Your task to perform on an android device: What is the news today? Image 0: 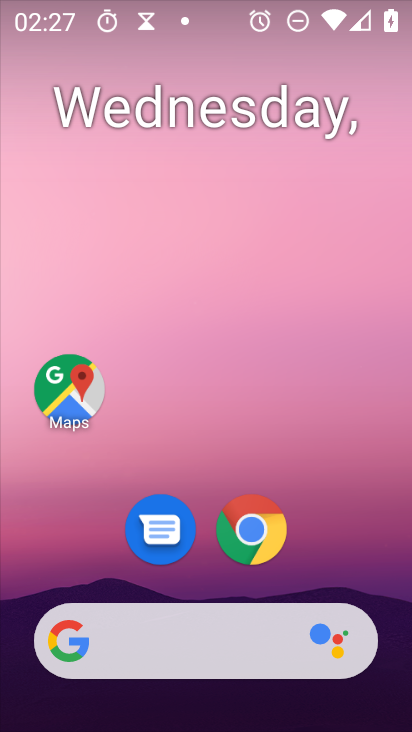
Step 0: drag from (293, 666) to (366, 7)
Your task to perform on an android device: What is the news today? Image 1: 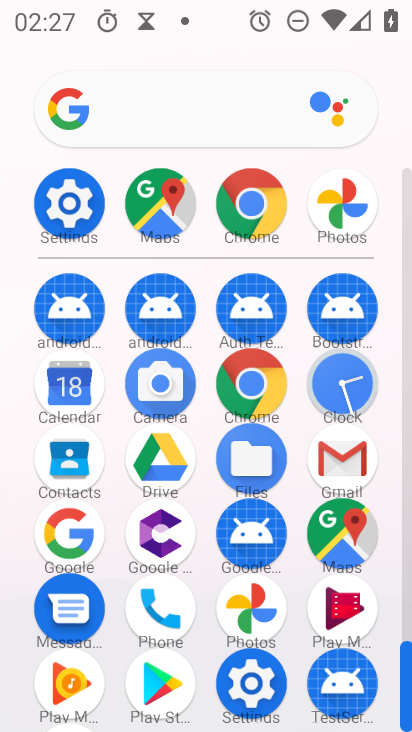
Step 1: click (274, 391)
Your task to perform on an android device: What is the news today? Image 2: 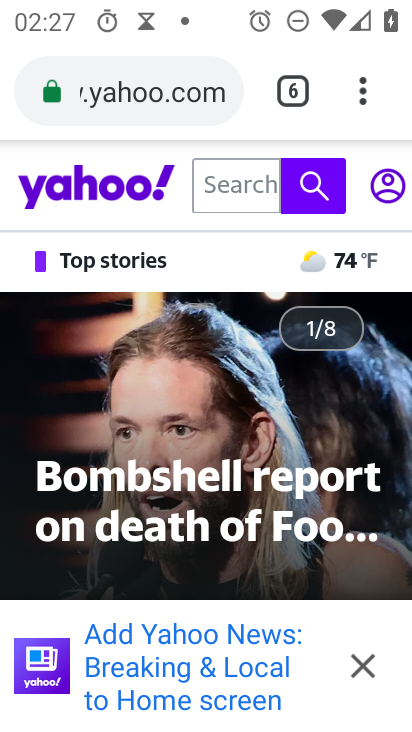
Step 2: click (205, 86)
Your task to perform on an android device: What is the news today? Image 3: 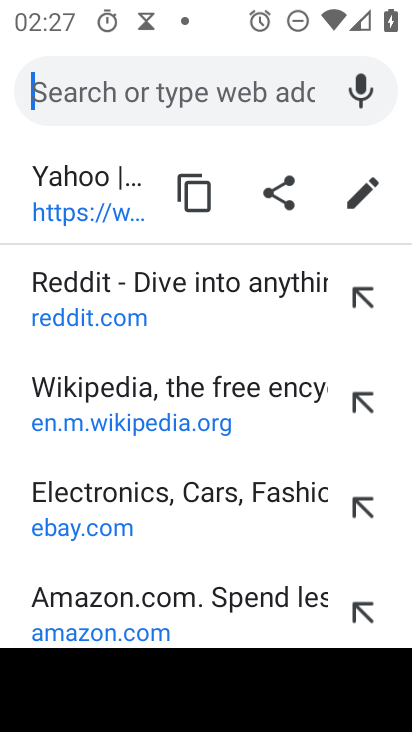
Step 3: type "news today"
Your task to perform on an android device: What is the news today? Image 4: 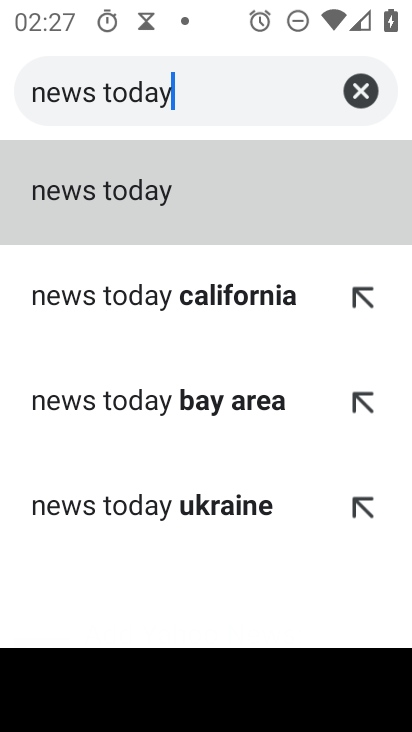
Step 4: click (103, 199)
Your task to perform on an android device: What is the news today? Image 5: 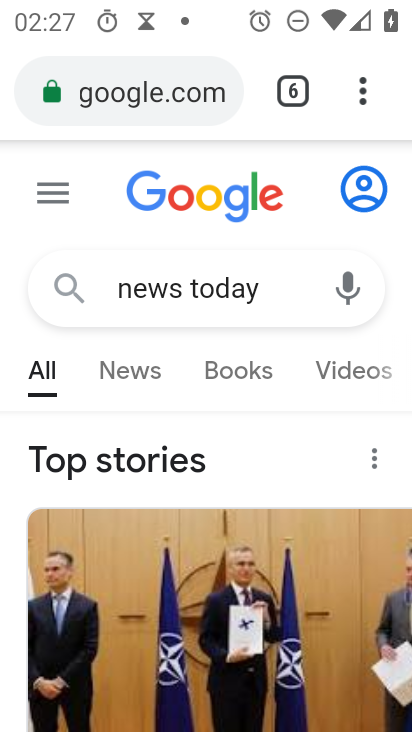
Step 5: task complete